Your task to perform on an android device: Go to eBay Image 0: 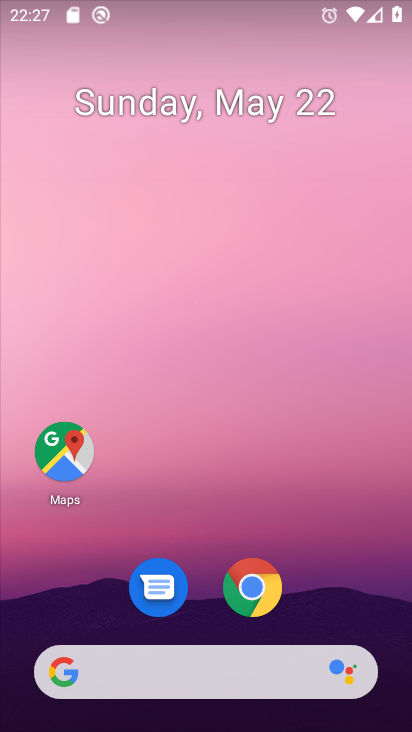
Step 0: click (224, 675)
Your task to perform on an android device: Go to eBay Image 1: 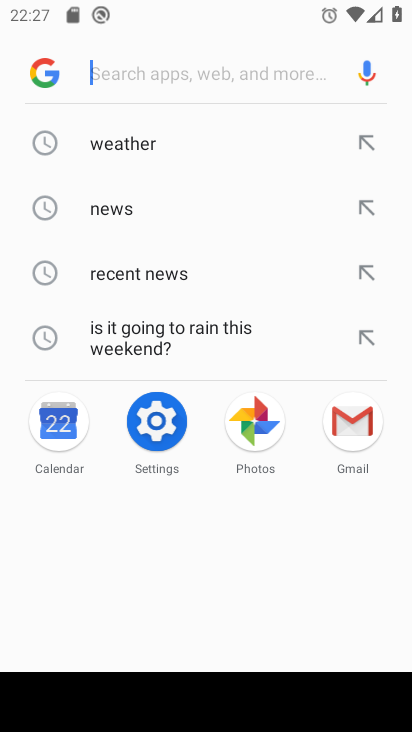
Step 1: type "ebay"
Your task to perform on an android device: Go to eBay Image 2: 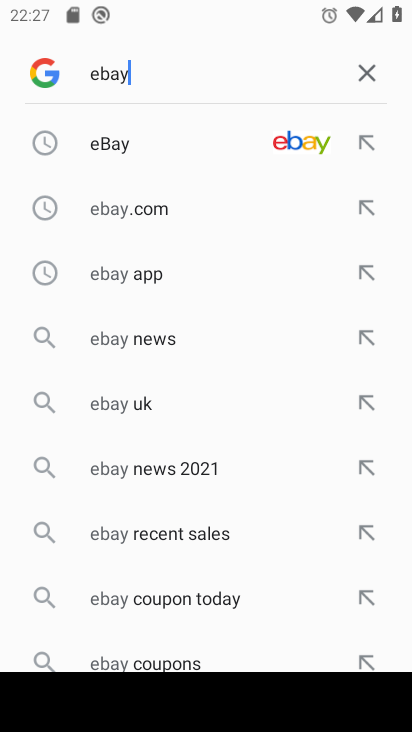
Step 2: click (99, 140)
Your task to perform on an android device: Go to eBay Image 3: 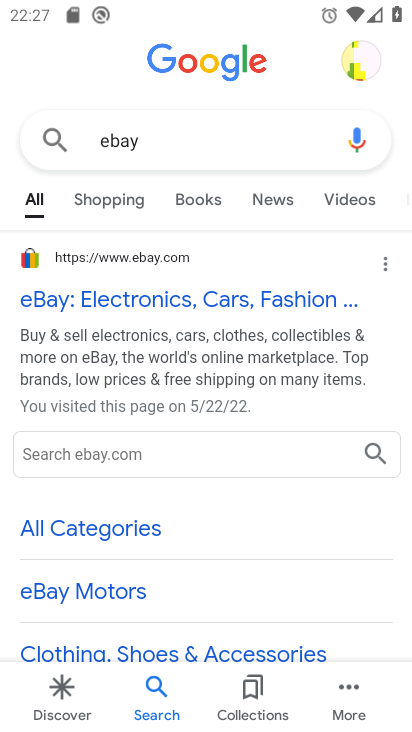
Step 3: click (52, 296)
Your task to perform on an android device: Go to eBay Image 4: 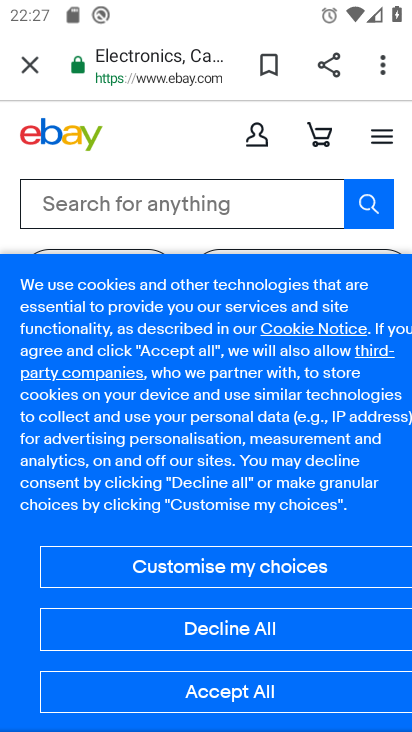
Step 4: task complete